Your task to perform on an android device: toggle improve location accuracy Image 0: 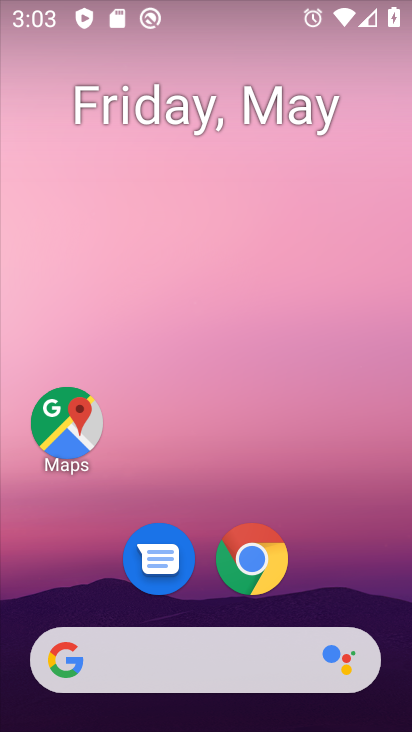
Step 0: drag from (370, 585) to (233, 23)
Your task to perform on an android device: toggle improve location accuracy Image 1: 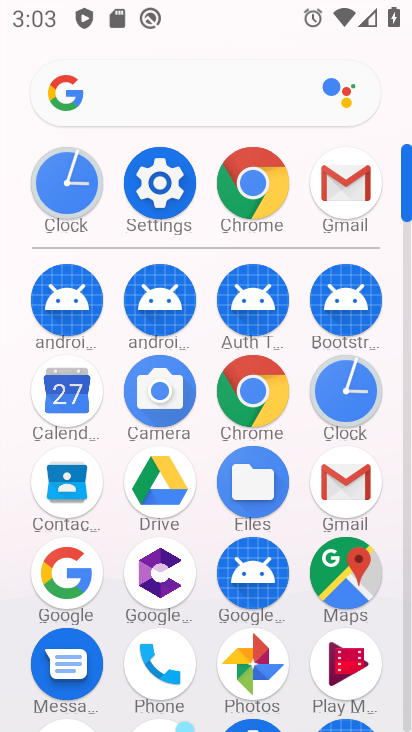
Step 1: click (181, 165)
Your task to perform on an android device: toggle improve location accuracy Image 2: 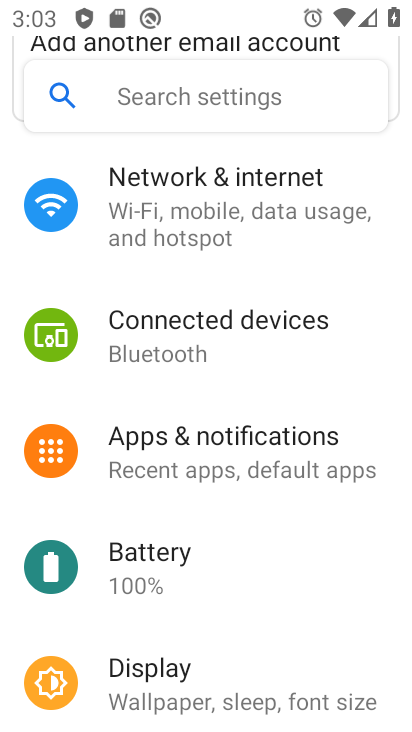
Step 2: drag from (264, 652) to (264, 196)
Your task to perform on an android device: toggle improve location accuracy Image 3: 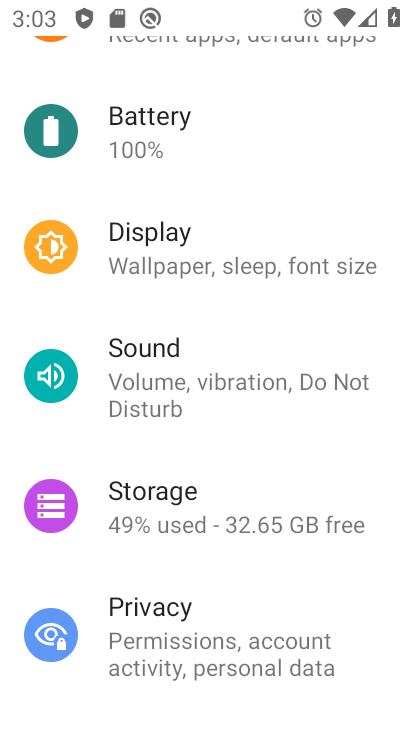
Step 3: drag from (213, 620) to (227, 260)
Your task to perform on an android device: toggle improve location accuracy Image 4: 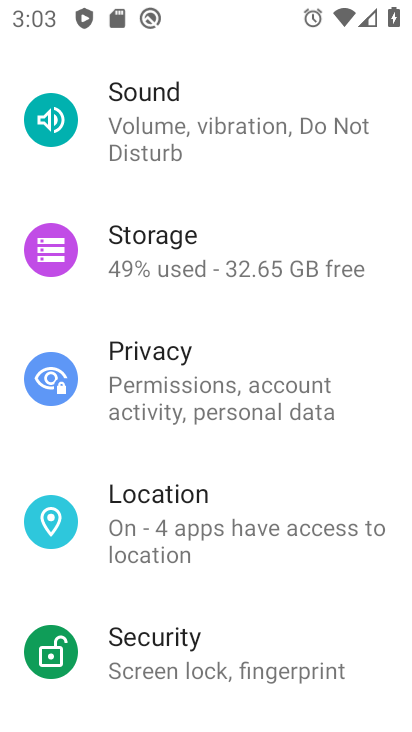
Step 4: click (304, 532)
Your task to perform on an android device: toggle improve location accuracy Image 5: 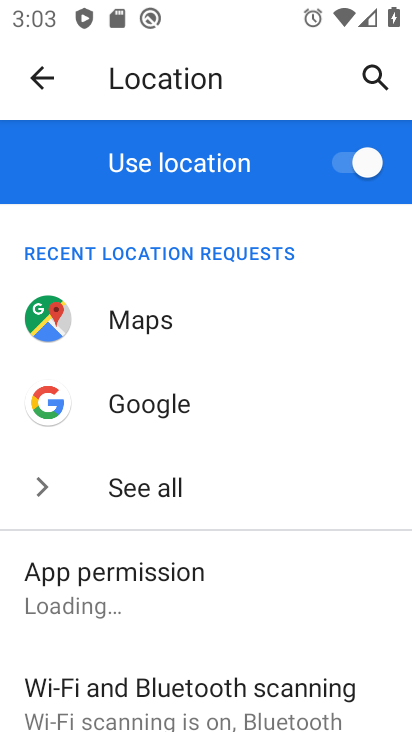
Step 5: drag from (281, 641) to (320, 257)
Your task to perform on an android device: toggle improve location accuracy Image 6: 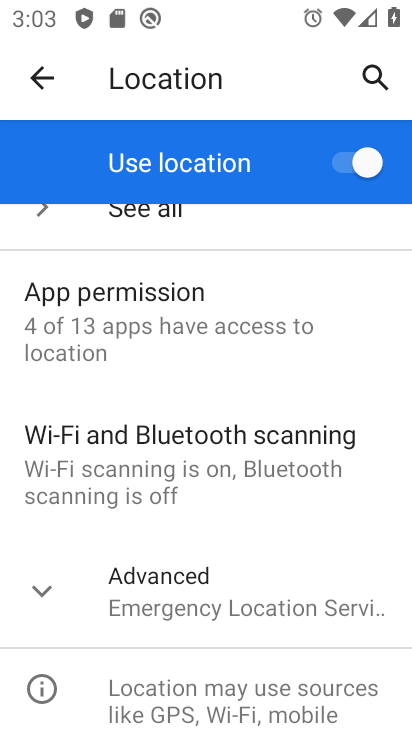
Step 6: click (210, 569)
Your task to perform on an android device: toggle improve location accuracy Image 7: 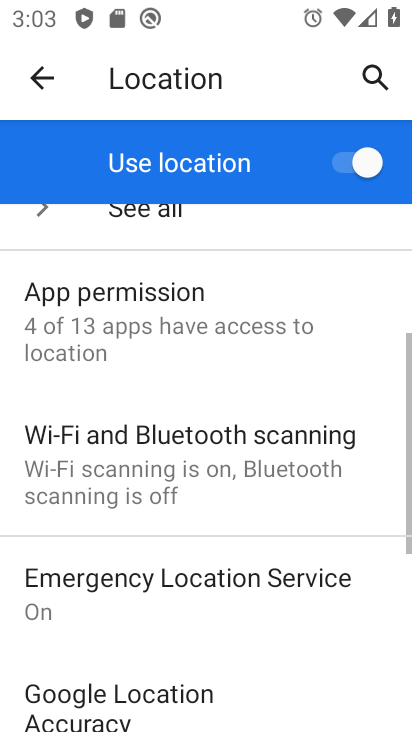
Step 7: click (278, 585)
Your task to perform on an android device: toggle improve location accuracy Image 8: 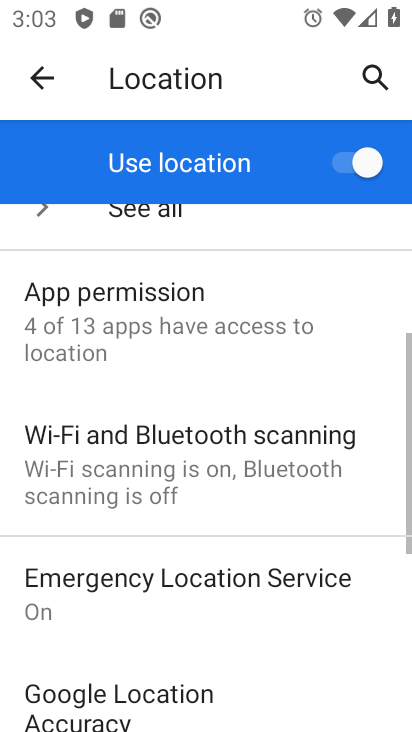
Step 8: drag from (278, 585) to (282, 405)
Your task to perform on an android device: toggle improve location accuracy Image 9: 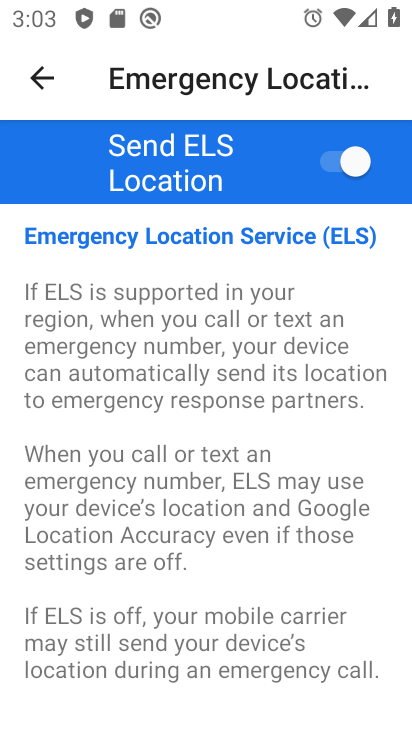
Step 9: press back button
Your task to perform on an android device: toggle improve location accuracy Image 10: 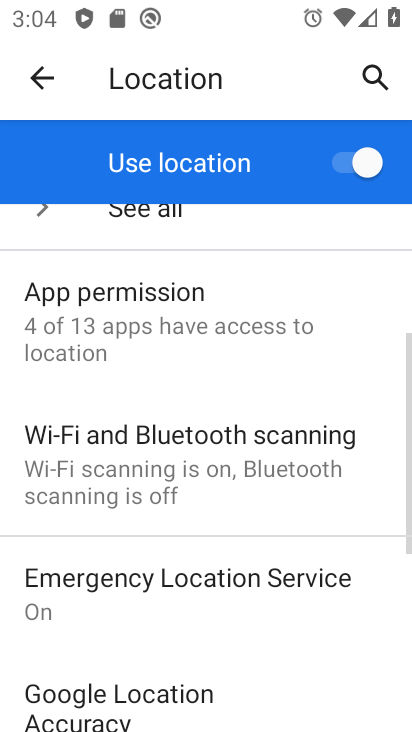
Step 10: drag from (208, 627) to (215, 358)
Your task to perform on an android device: toggle improve location accuracy Image 11: 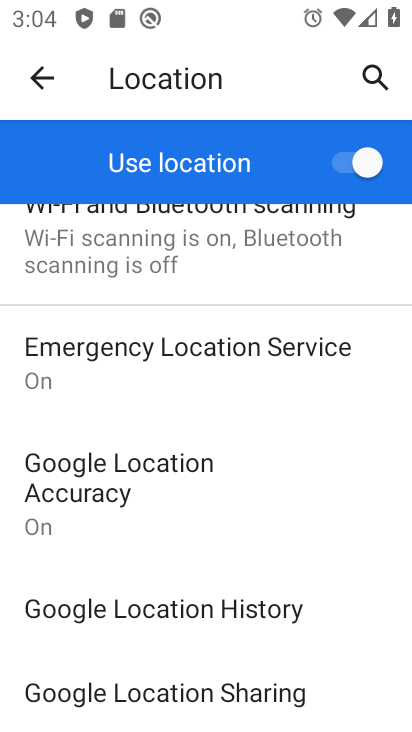
Step 11: drag from (271, 688) to (271, 635)
Your task to perform on an android device: toggle improve location accuracy Image 12: 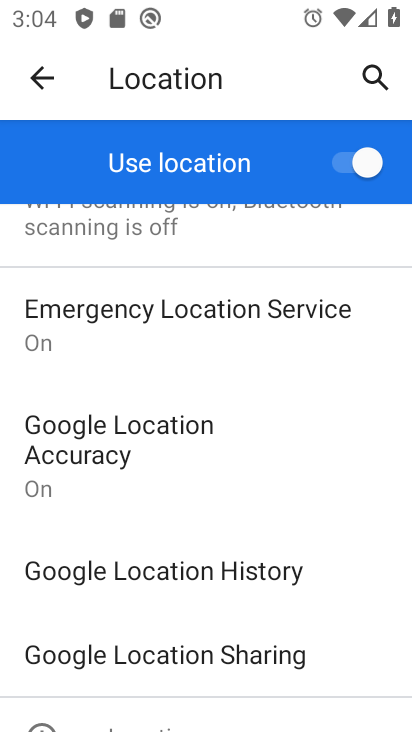
Step 12: click (185, 469)
Your task to perform on an android device: toggle improve location accuracy Image 13: 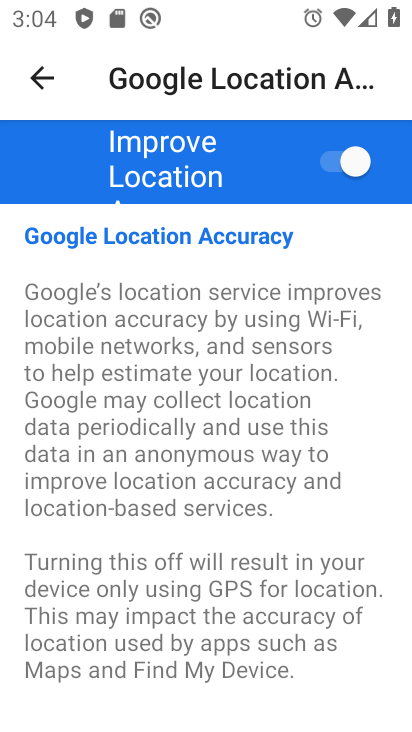
Step 13: task complete